Your task to perform on an android device: allow cookies in the chrome app Image 0: 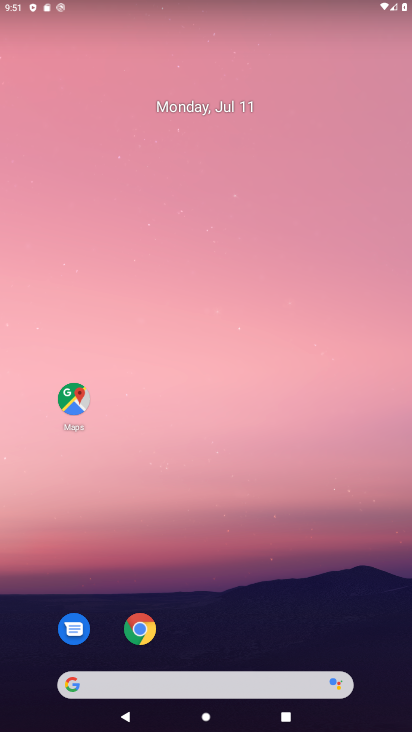
Step 0: click (129, 631)
Your task to perform on an android device: allow cookies in the chrome app Image 1: 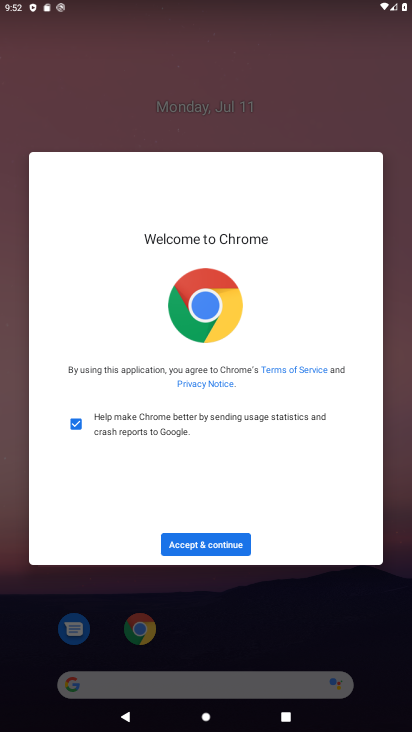
Step 1: click (192, 538)
Your task to perform on an android device: allow cookies in the chrome app Image 2: 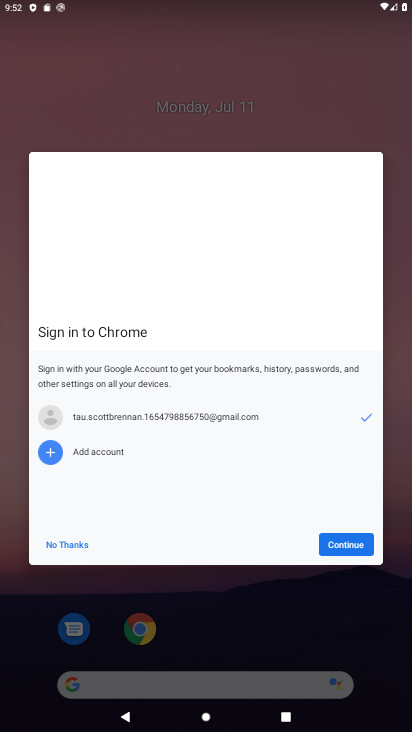
Step 2: click (351, 539)
Your task to perform on an android device: allow cookies in the chrome app Image 3: 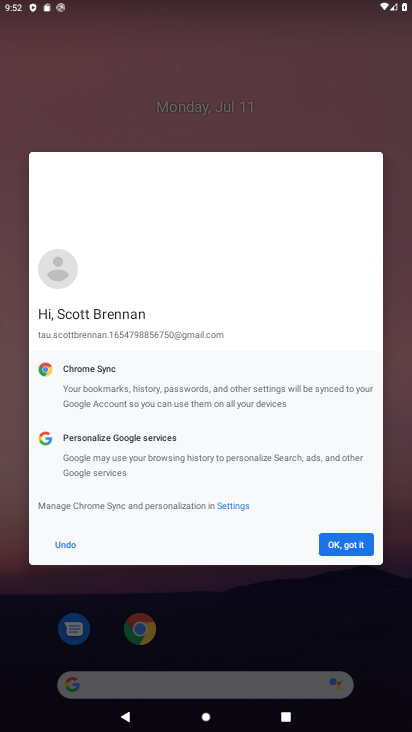
Step 3: click (351, 539)
Your task to perform on an android device: allow cookies in the chrome app Image 4: 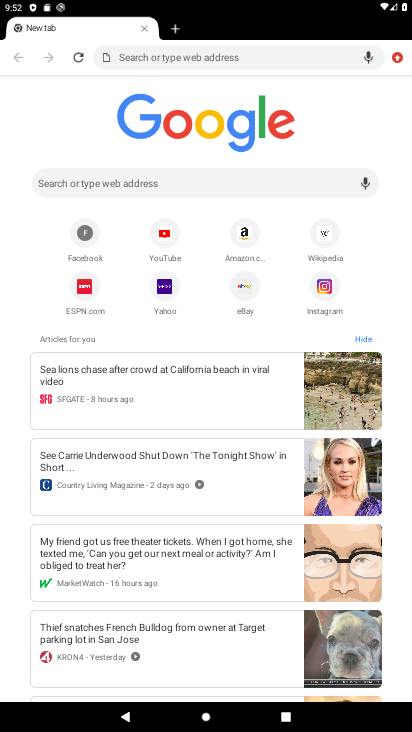
Step 4: click (389, 62)
Your task to perform on an android device: allow cookies in the chrome app Image 5: 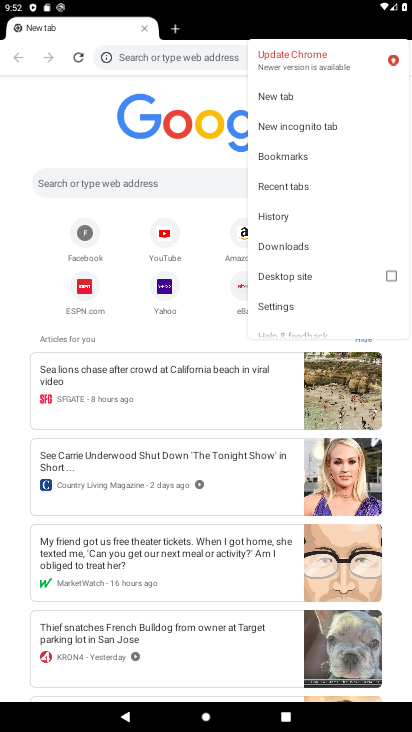
Step 5: click (308, 214)
Your task to perform on an android device: allow cookies in the chrome app Image 6: 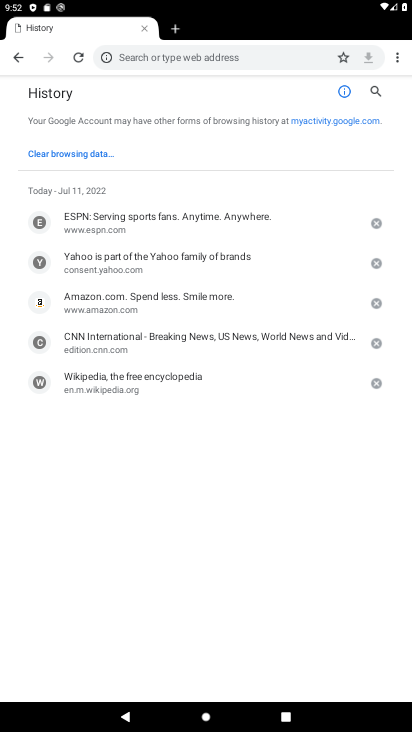
Step 6: click (23, 65)
Your task to perform on an android device: allow cookies in the chrome app Image 7: 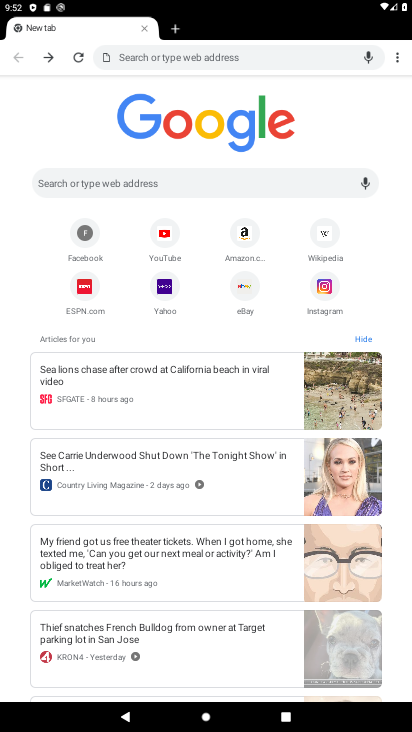
Step 7: click (398, 65)
Your task to perform on an android device: allow cookies in the chrome app Image 8: 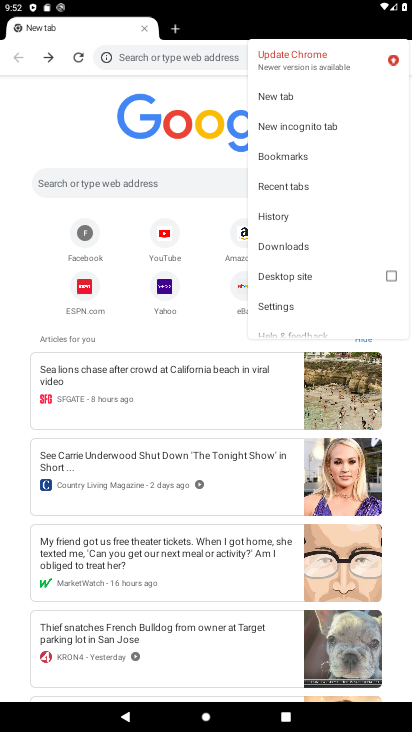
Step 8: click (306, 315)
Your task to perform on an android device: allow cookies in the chrome app Image 9: 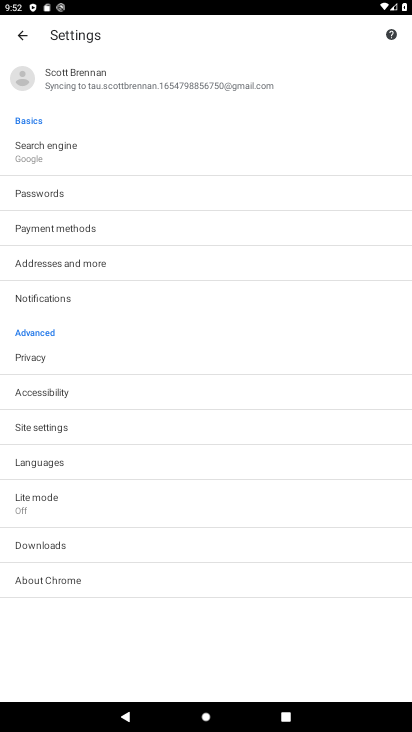
Step 9: click (144, 439)
Your task to perform on an android device: allow cookies in the chrome app Image 10: 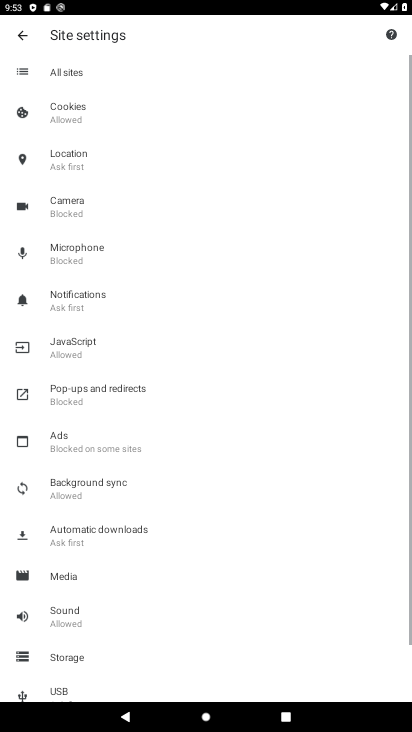
Step 10: click (228, 73)
Your task to perform on an android device: allow cookies in the chrome app Image 11: 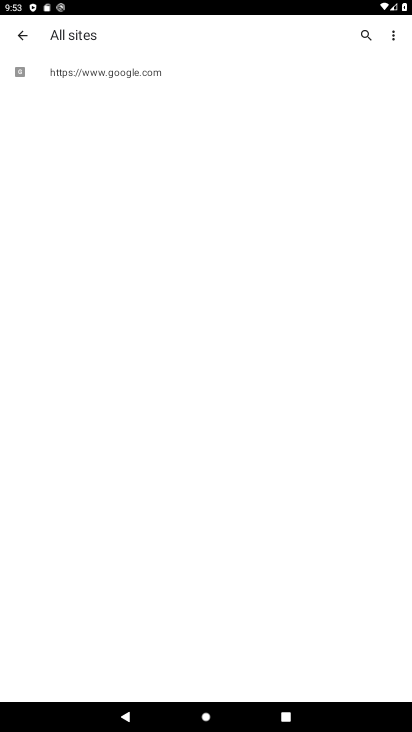
Step 11: task complete